Your task to perform on an android device: Open Chrome and go to settings Image 0: 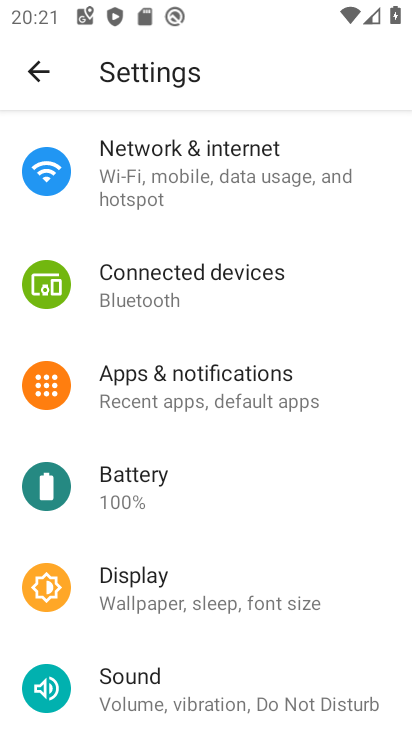
Step 0: press home button
Your task to perform on an android device: Open Chrome and go to settings Image 1: 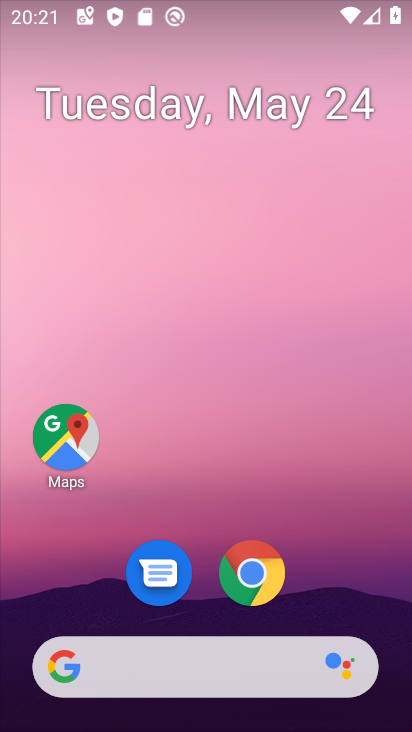
Step 1: click (264, 573)
Your task to perform on an android device: Open Chrome and go to settings Image 2: 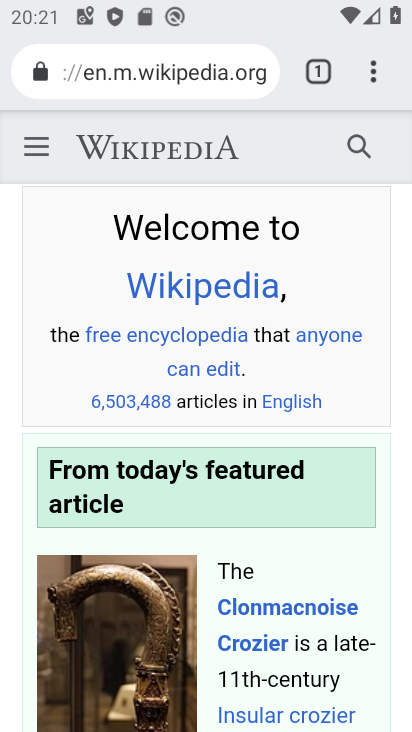
Step 2: click (376, 66)
Your task to perform on an android device: Open Chrome and go to settings Image 3: 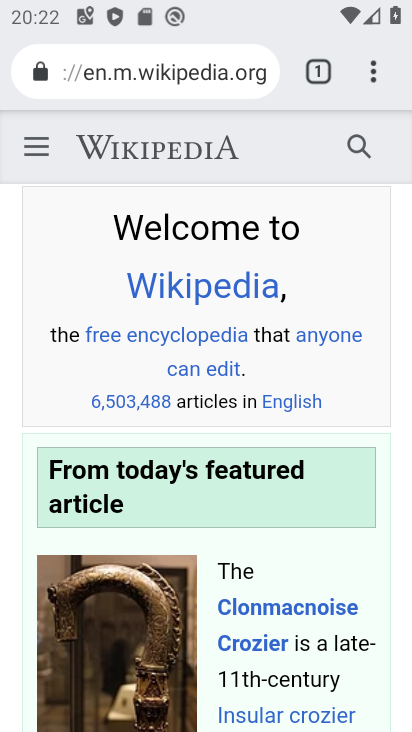
Step 3: click (381, 70)
Your task to perform on an android device: Open Chrome and go to settings Image 4: 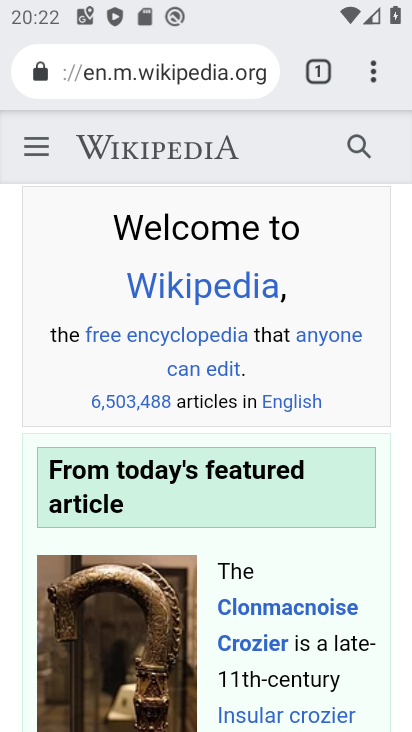
Step 4: click (367, 67)
Your task to perform on an android device: Open Chrome and go to settings Image 5: 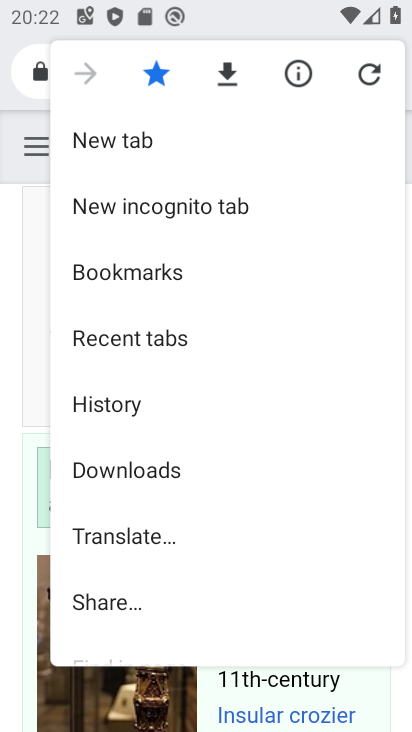
Step 5: drag from (239, 624) to (204, 461)
Your task to perform on an android device: Open Chrome and go to settings Image 6: 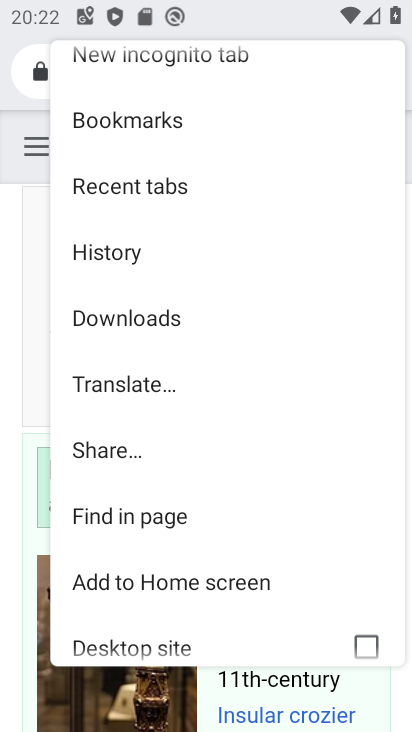
Step 6: drag from (162, 573) to (171, 275)
Your task to perform on an android device: Open Chrome and go to settings Image 7: 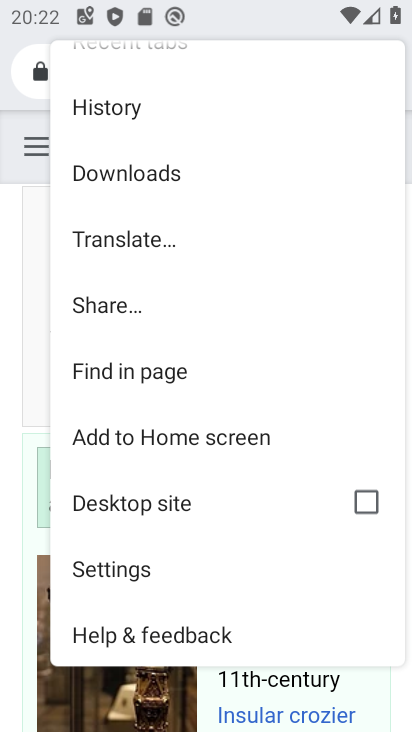
Step 7: click (144, 569)
Your task to perform on an android device: Open Chrome and go to settings Image 8: 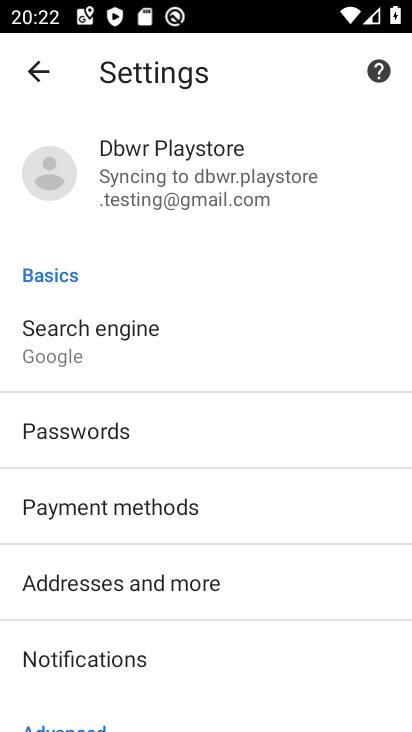
Step 8: task complete